Your task to perform on an android device: turn pop-ups off in chrome Image 0: 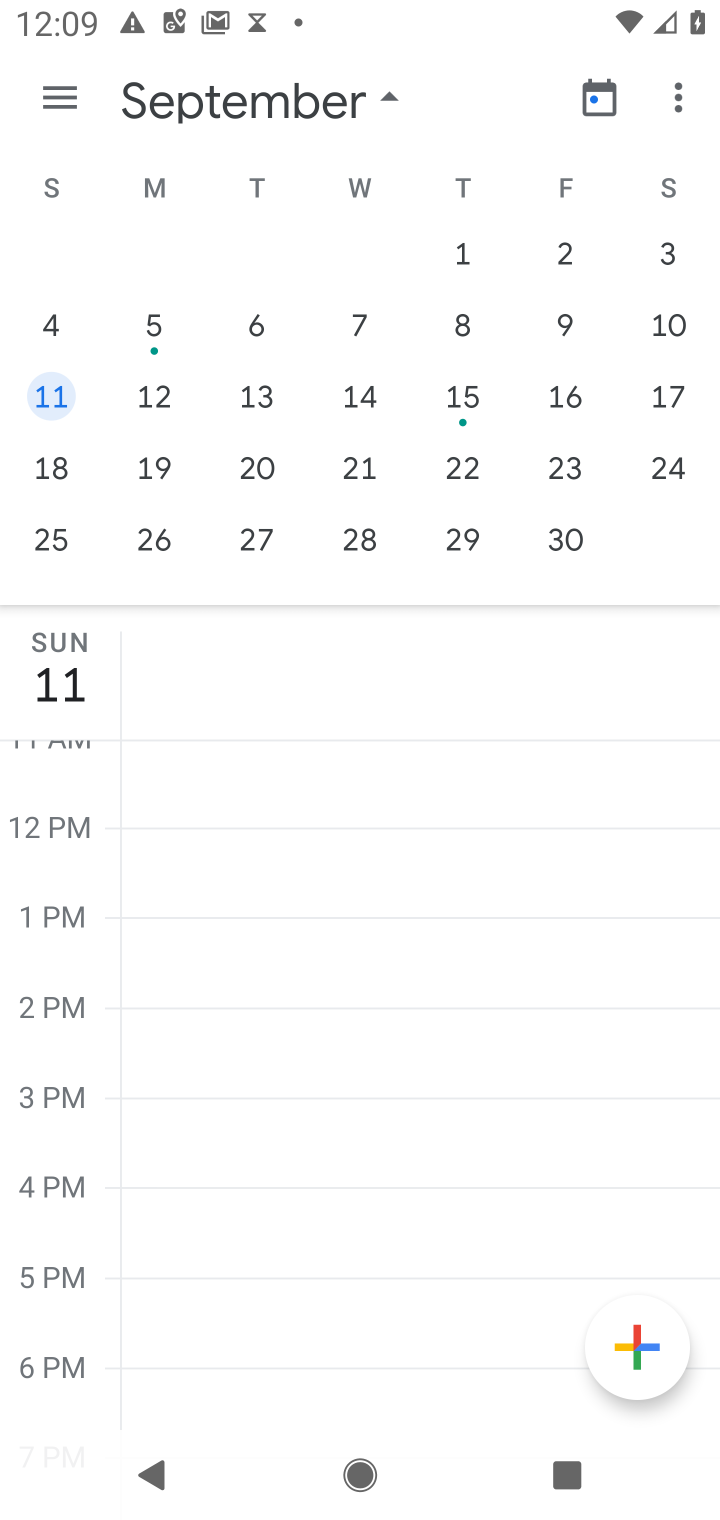
Step 0: press home button
Your task to perform on an android device: turn pop-ups off in chrome Image 1: 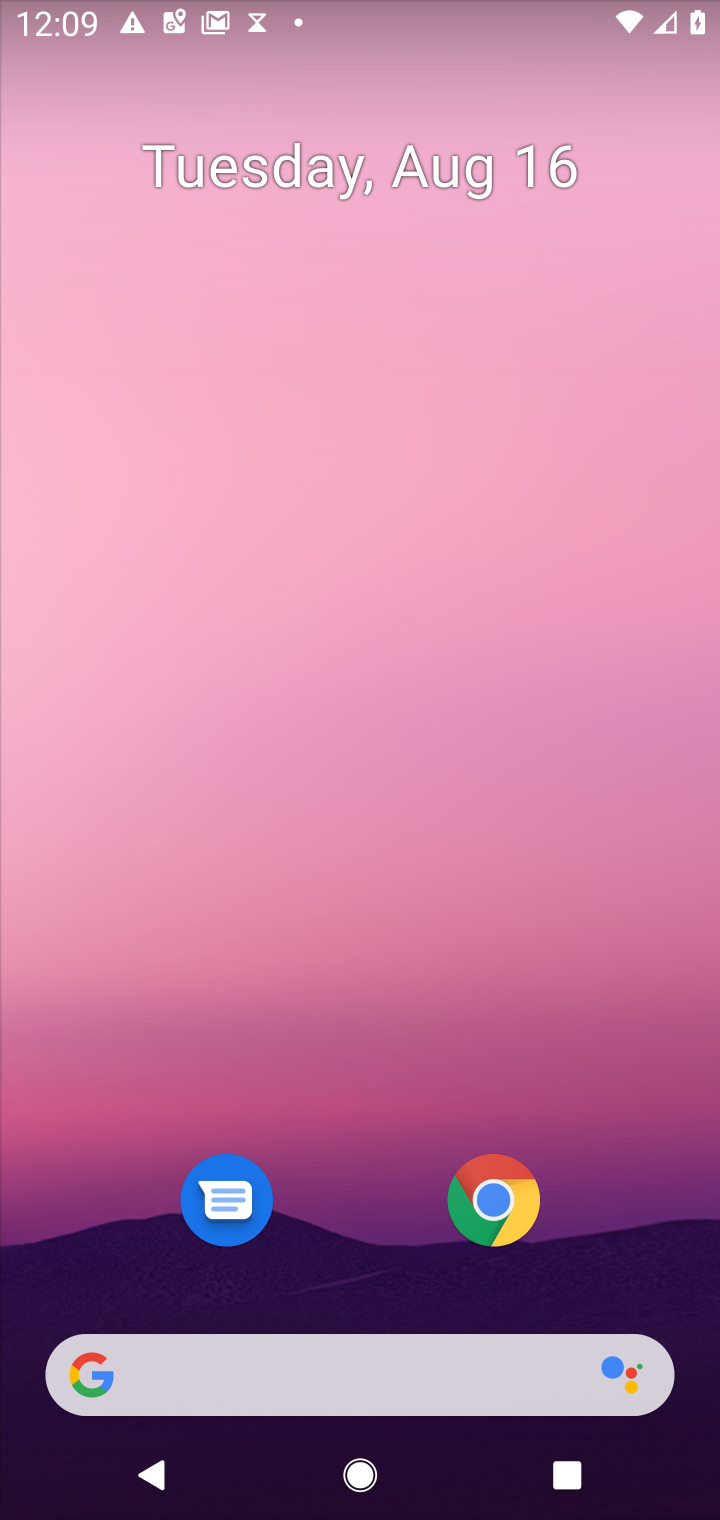
Step 1: click (480, 1156)
Your task to perform on an android device: turn pop-ups off in chrome Image 2: 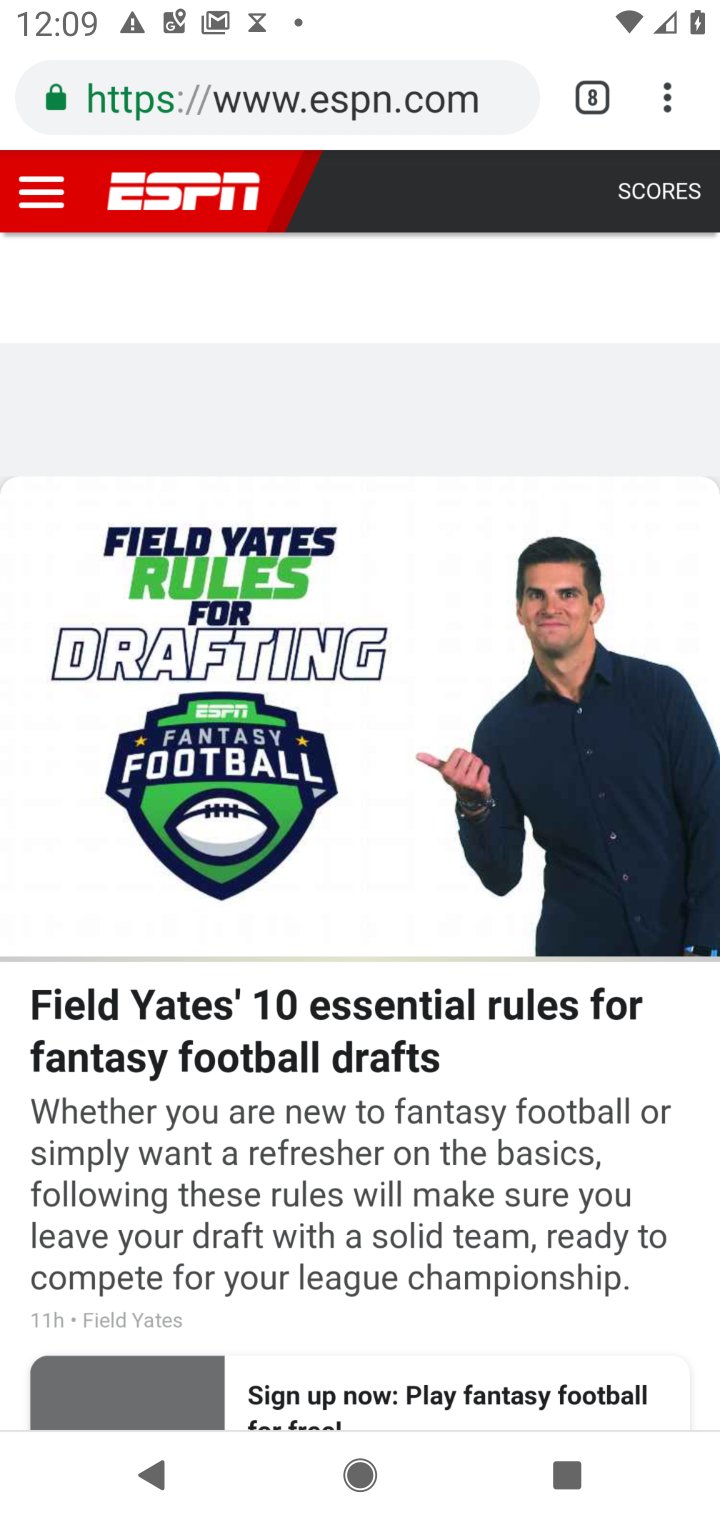
Step 2: click (665, 108)
Your task to perform on an android device: turn pop-ups off in chrome Image 3: 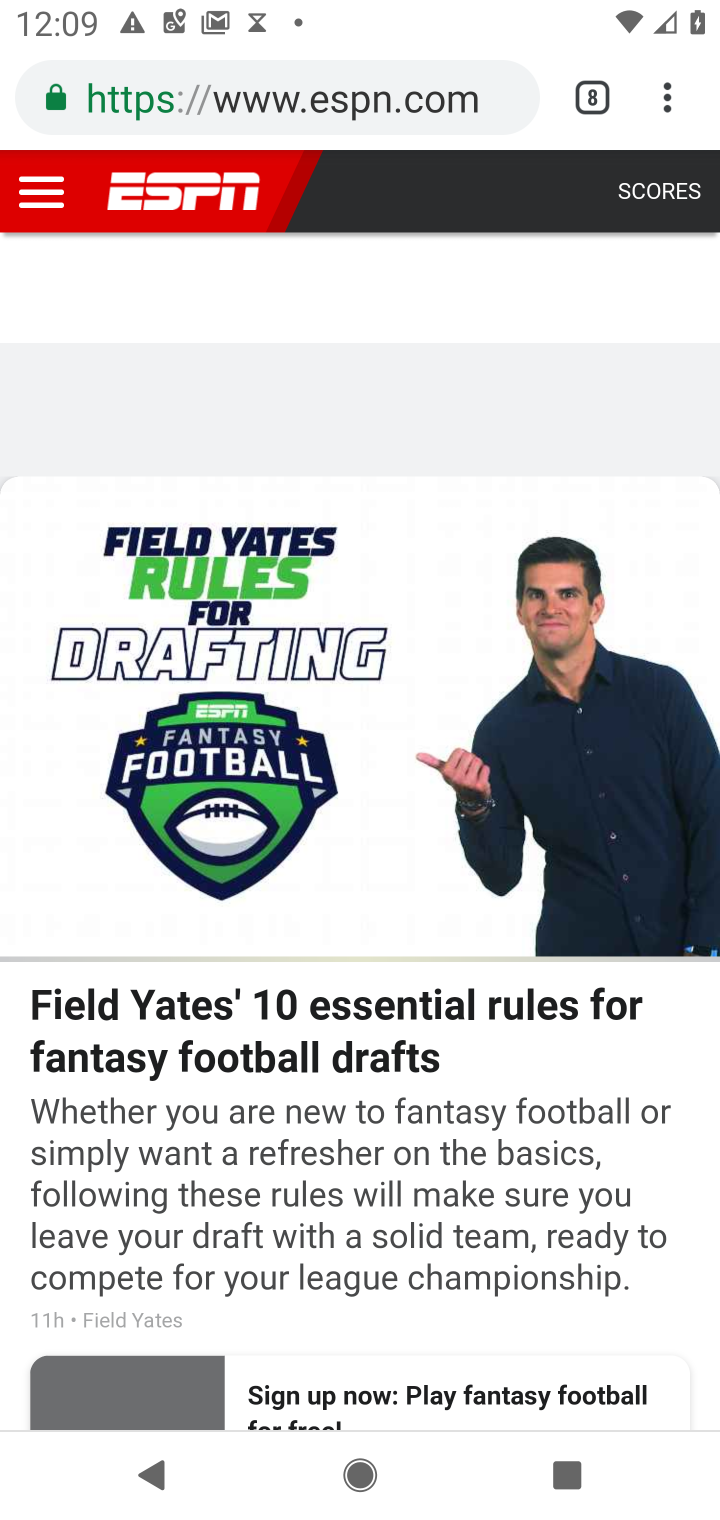
Step 3: click (655, 105)
Your task to perform on an android device: turn pop-ups off in chrome Image 4: 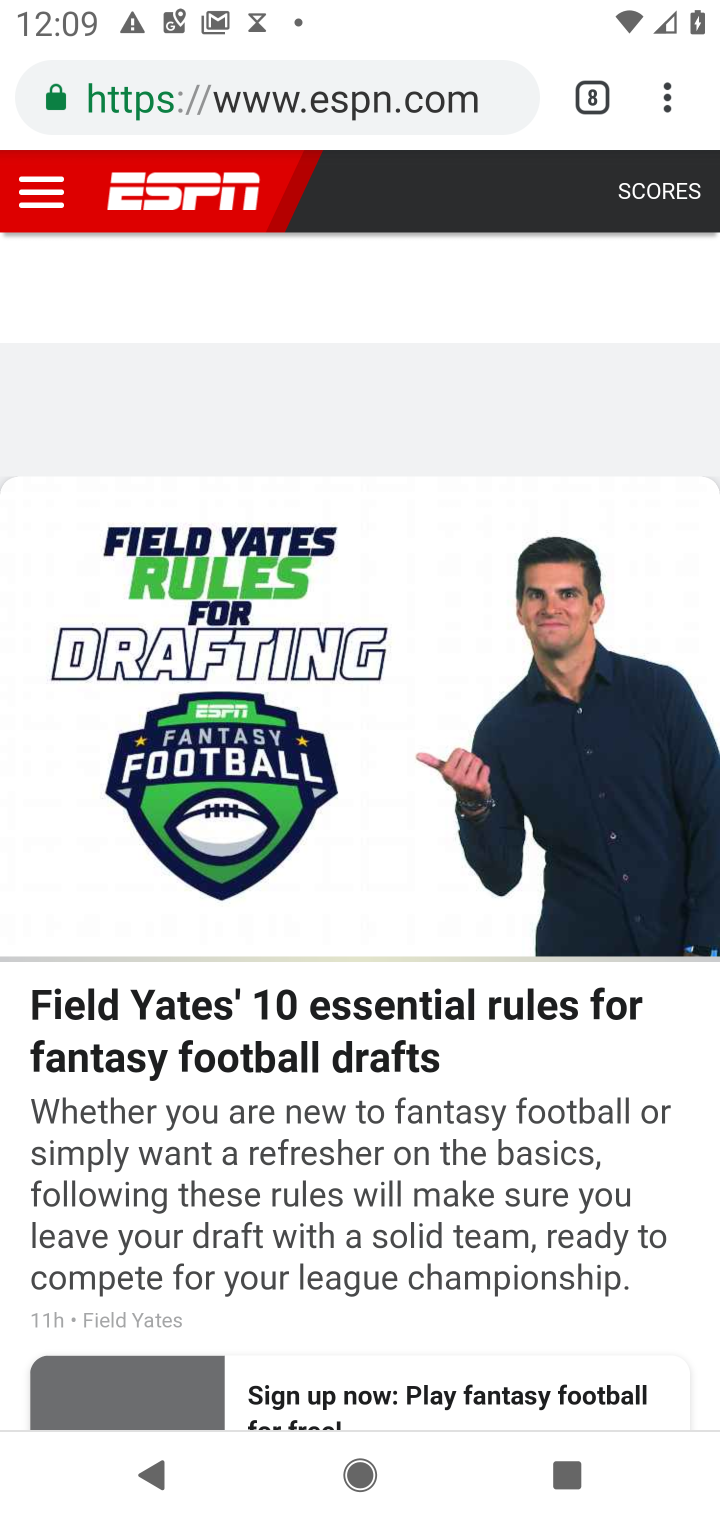
Step 4: click (674, 105)
Your task to perform on an android device: turn pop-ups off in chrome Image 5: 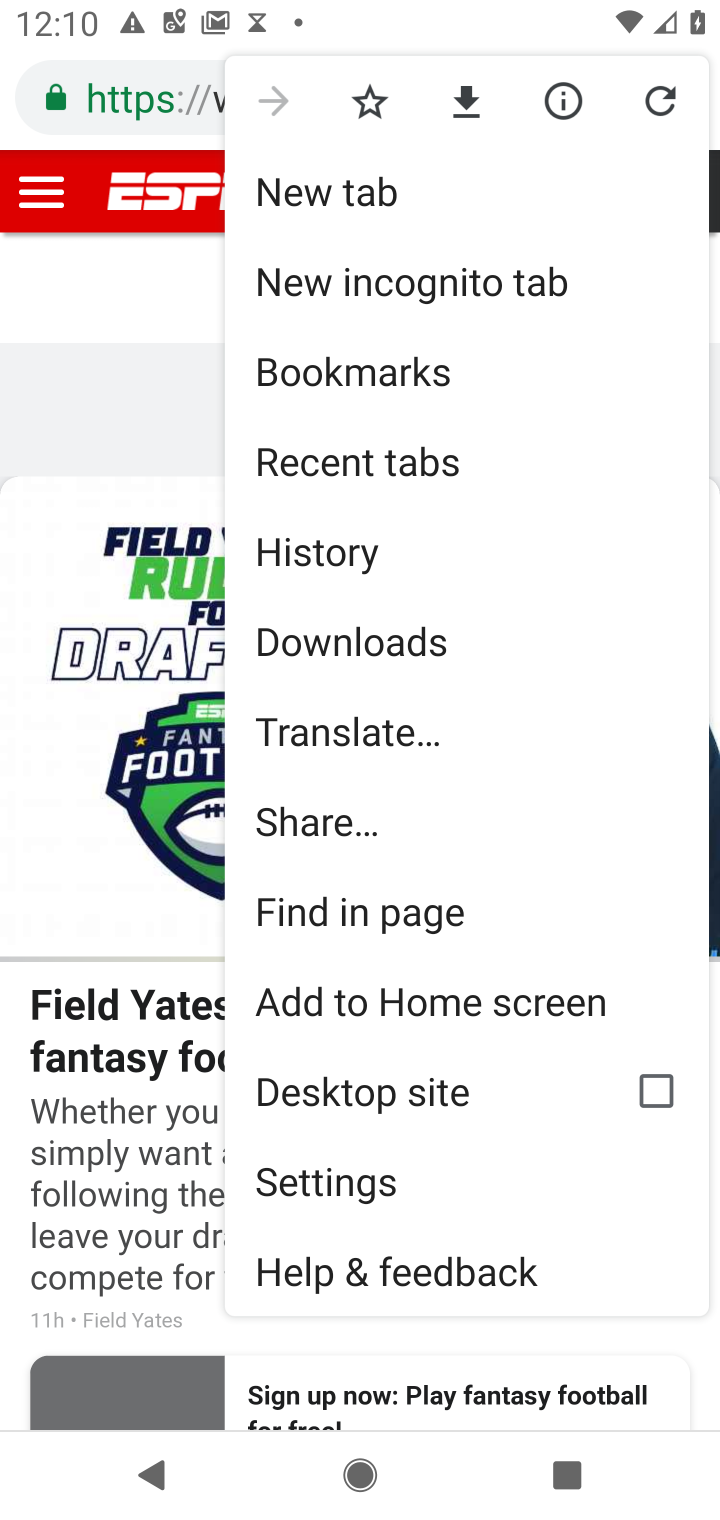
Step 5: click (399, 1176)
Your task to perform on an android device: turn pop-ups off in chrome Image 6: 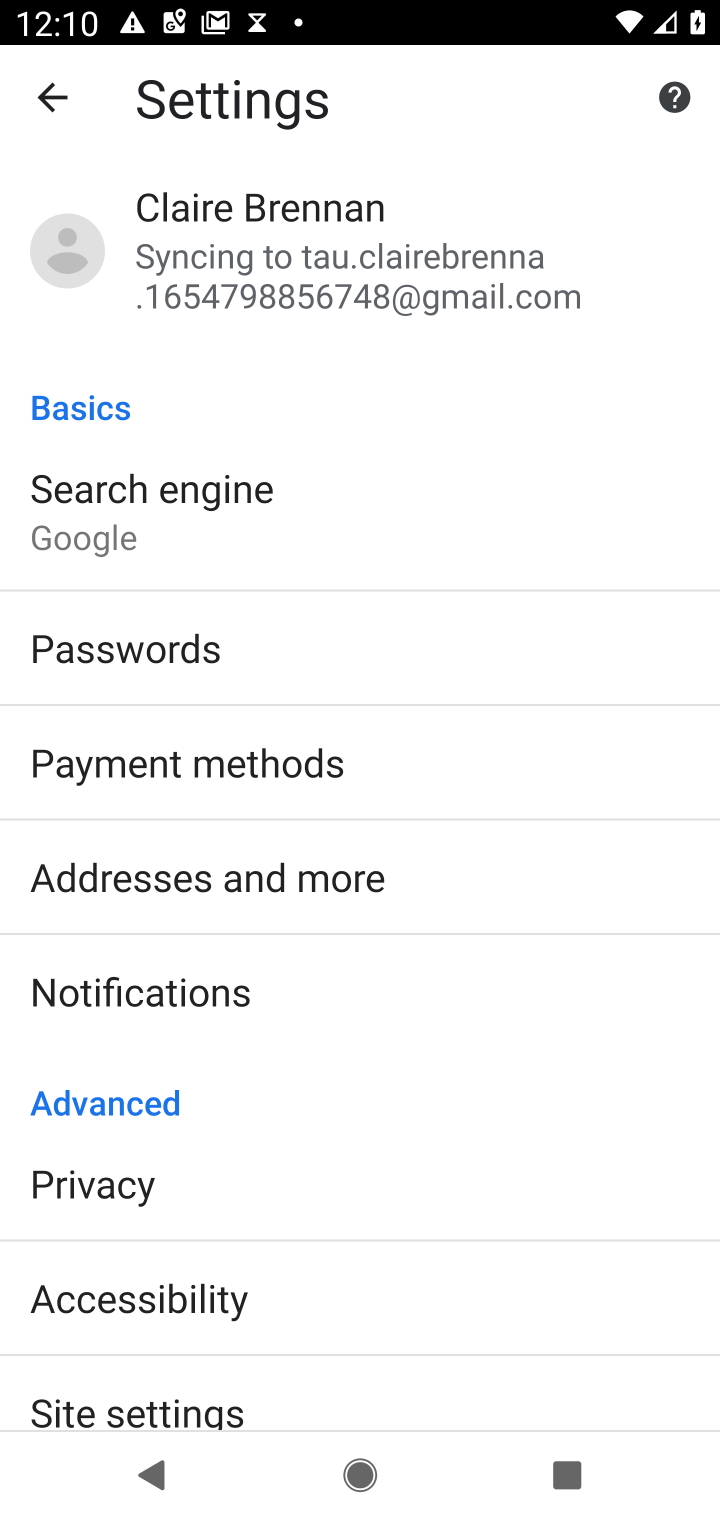
Step 6: drag from (288, 1282) to (398, 646)
Your task to perform on an android device: turn pop-ups off in chrome Image 7: 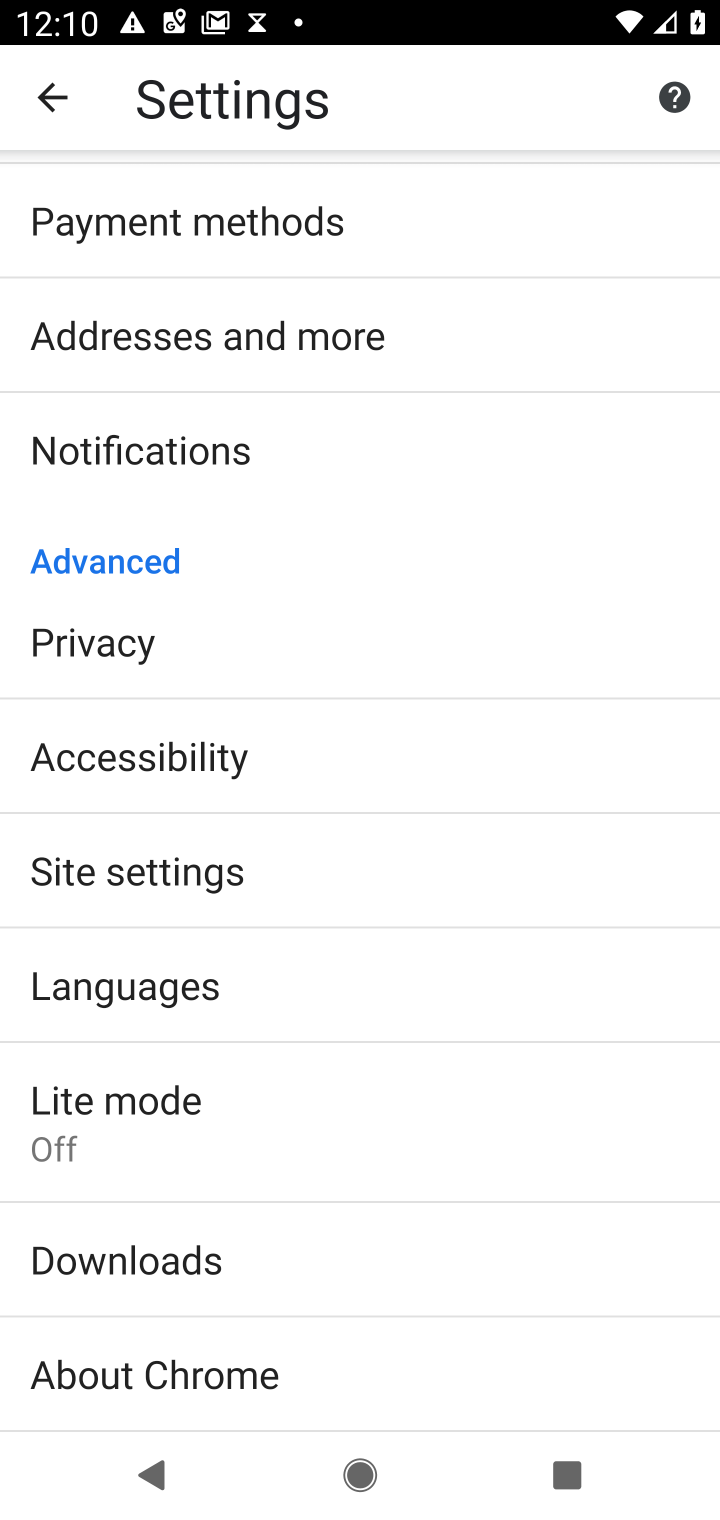
Step 7: drag from (240, 1166) to (247, 673)
Your task to perform on an android device: turn pop-ups off in chrome Image 8: 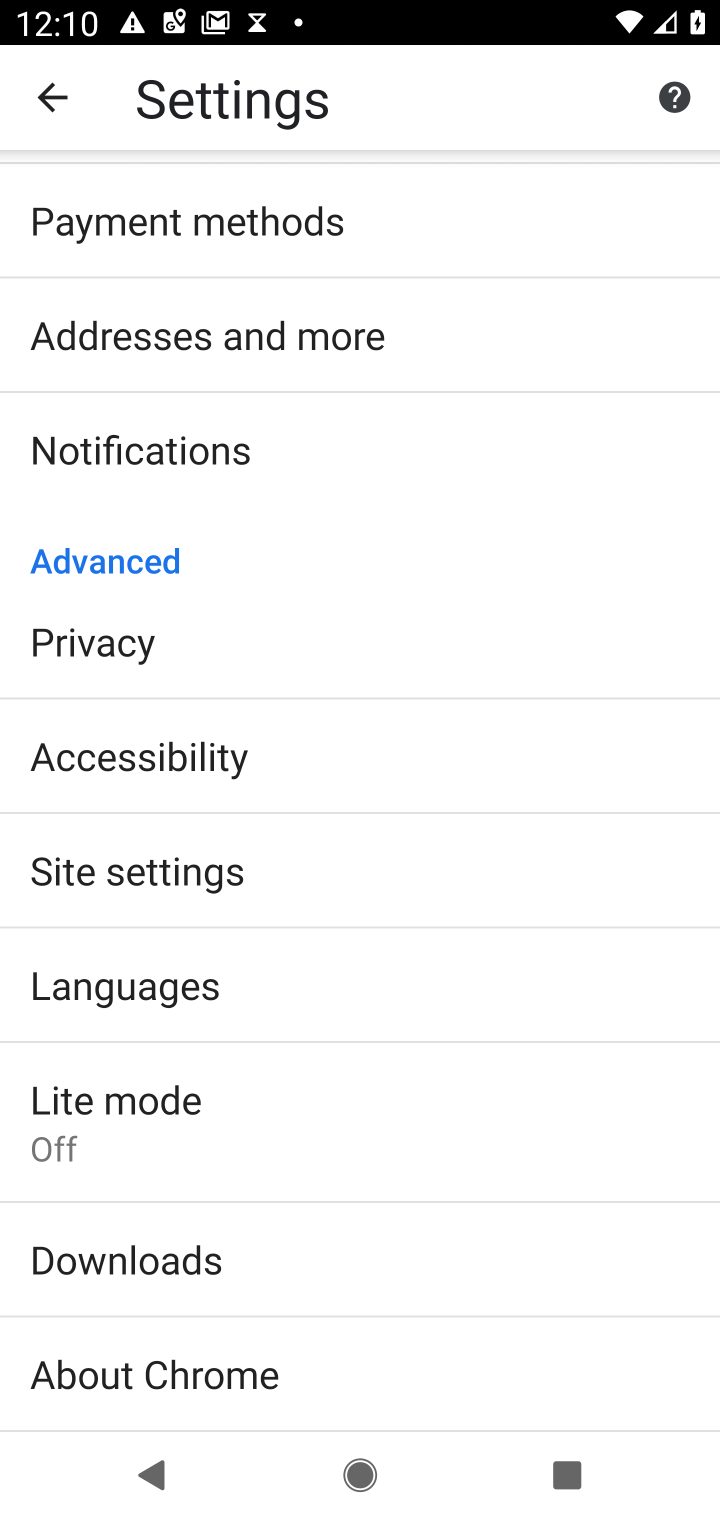
Step 8: click (307, 888)
Your task to perform on an android device: turn pop-ups off in chrome Image 9: 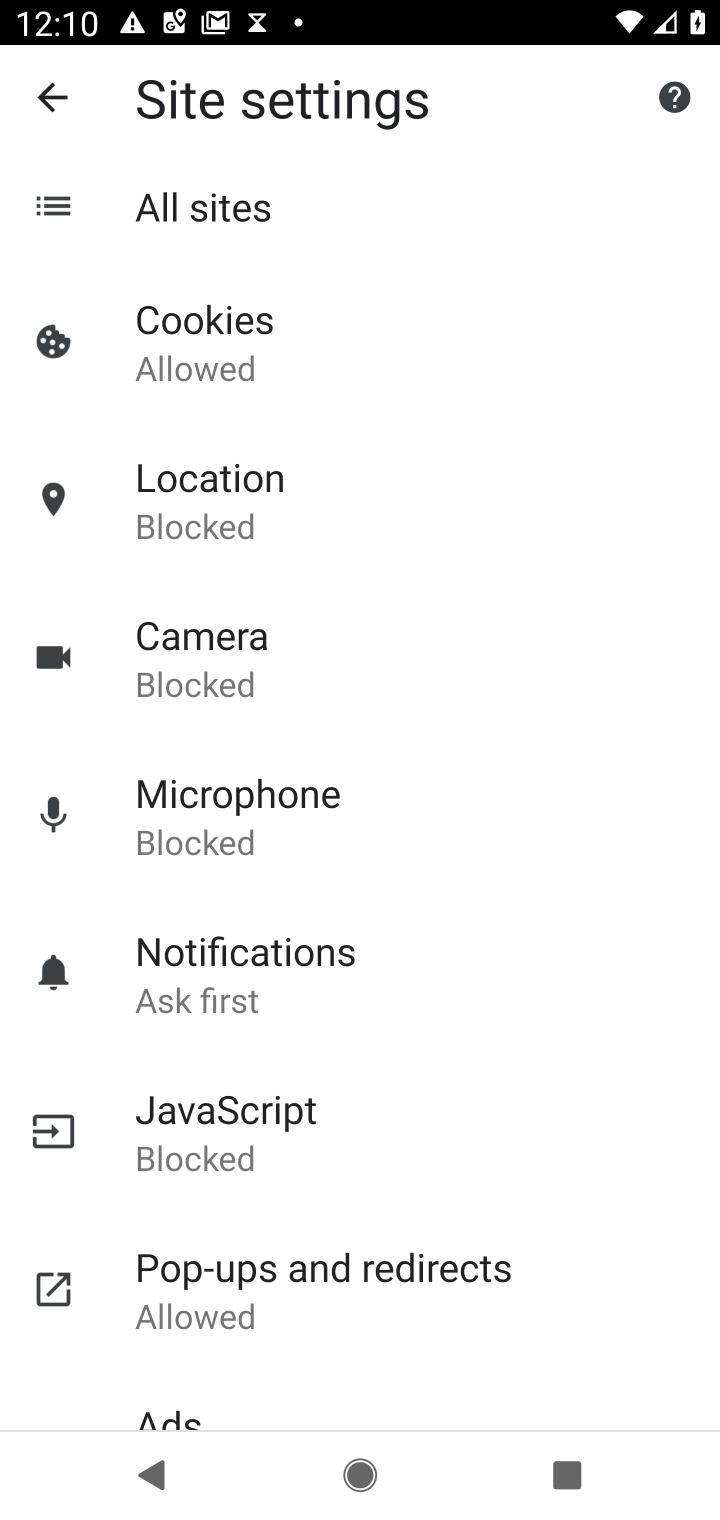
Step 9: click (200, 1263)
Your task to perform on an android device: turn pop-ups off in chrome Image 10: 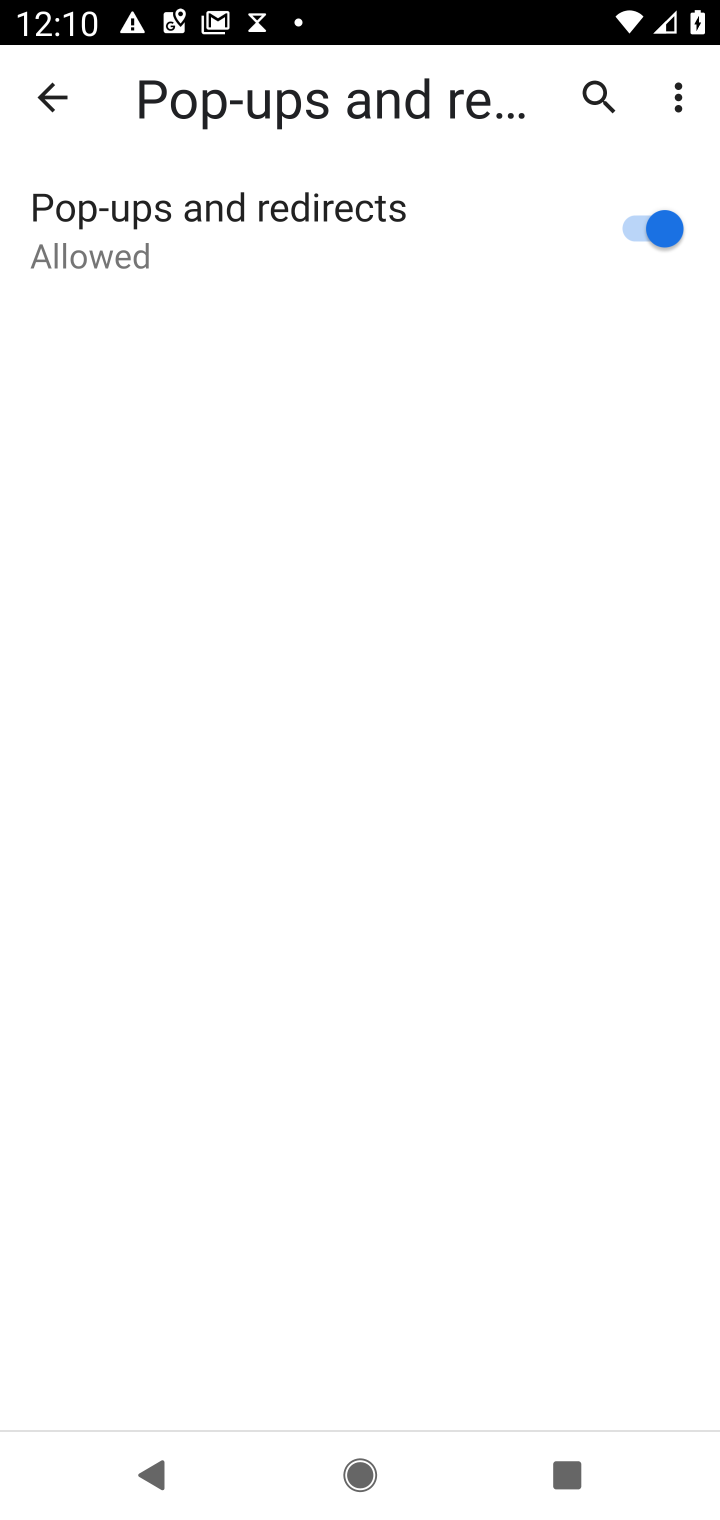
Step 10: click (606, 237)
Your task to perform on an android device: turn pop-ups off in chrome Image 11: 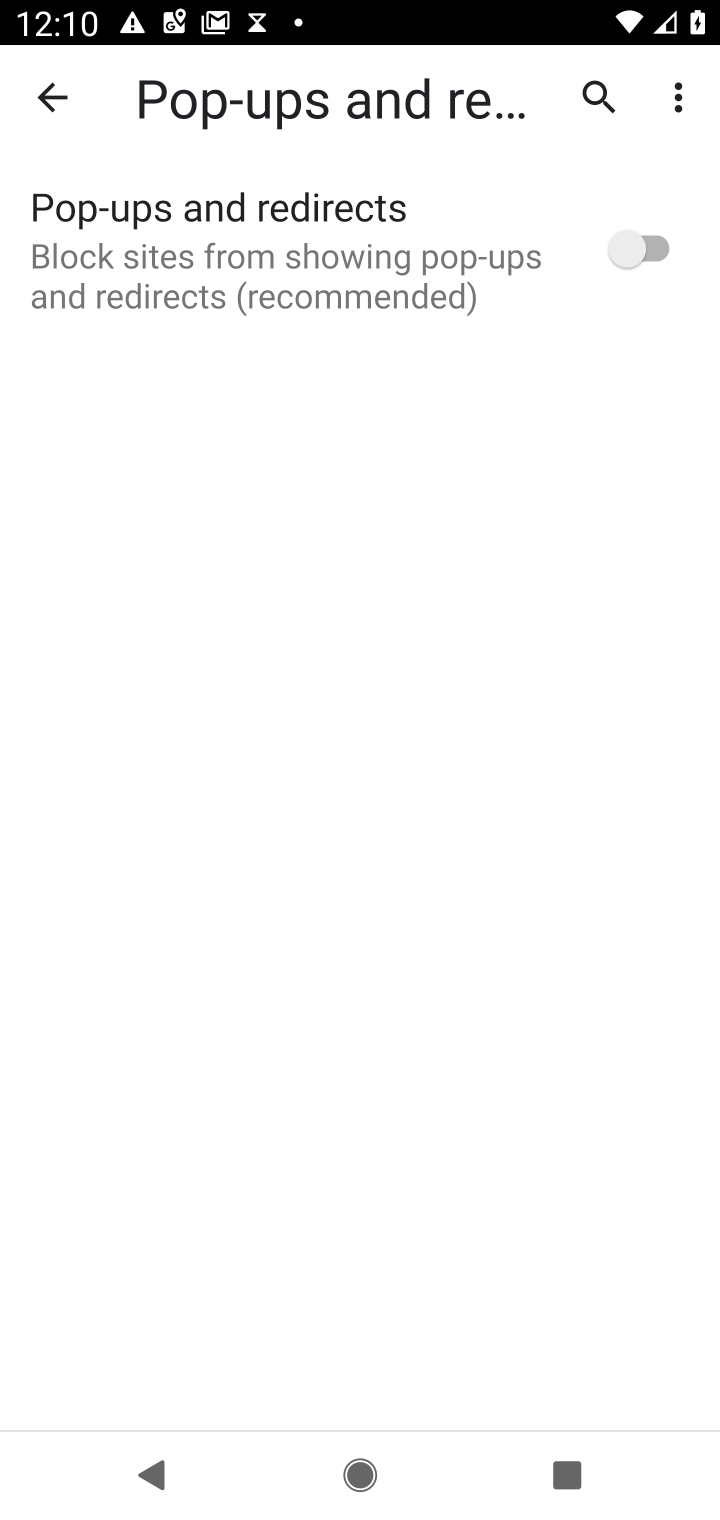
Step 11: task complete